Your task to perform on an android device: open a bookmark in the chrome app Image 0: 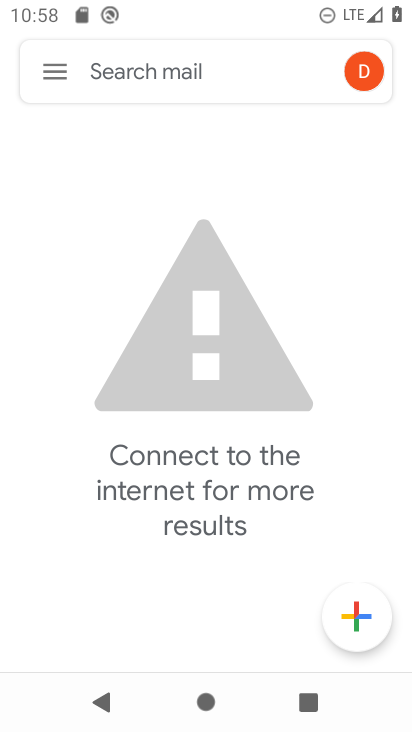
Step 0: press home button
Your task to perform on an android device: open a bookmark in the chrome app Image 1: 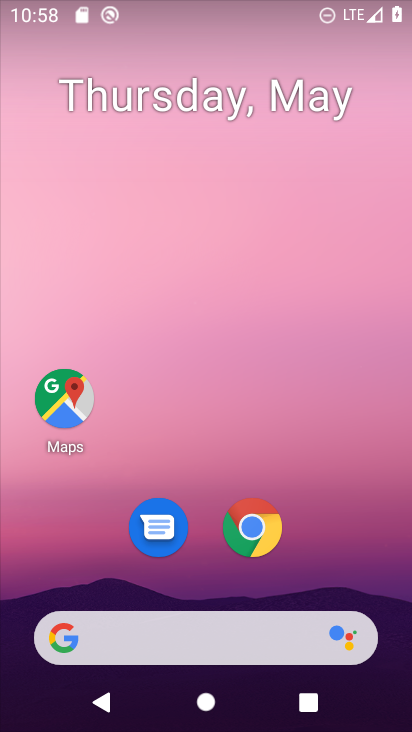
Step 1: drag from (341, 561) to (350, 512)
Your task to perform on an android device: open a bookmark in the chrome app Image 2: 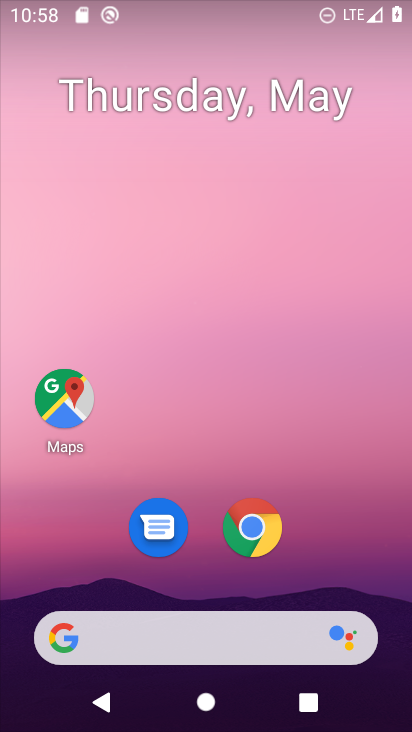
Step 2: click (250, 517)
Your task to perform on an android device: open a bookmark in the chrome app Image 3: 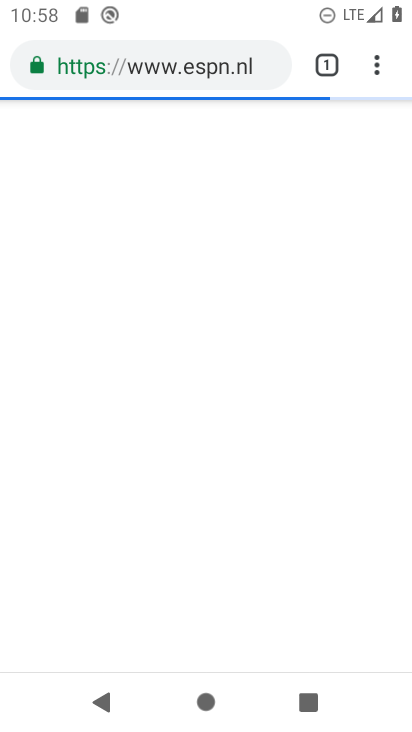
Step 3: click (377, 60)
Your task to perform on an android device: open a bookmark in the chrome app Image 4: 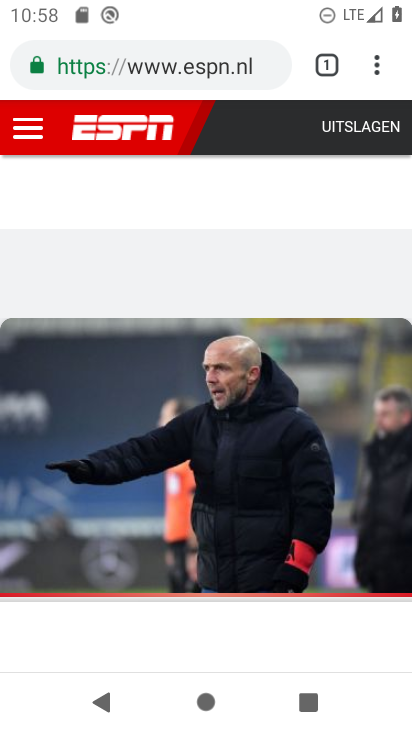
Step 4: task complete